Your task to perform on an android device: uninstall "WhatsApp Messenger" Image 0: 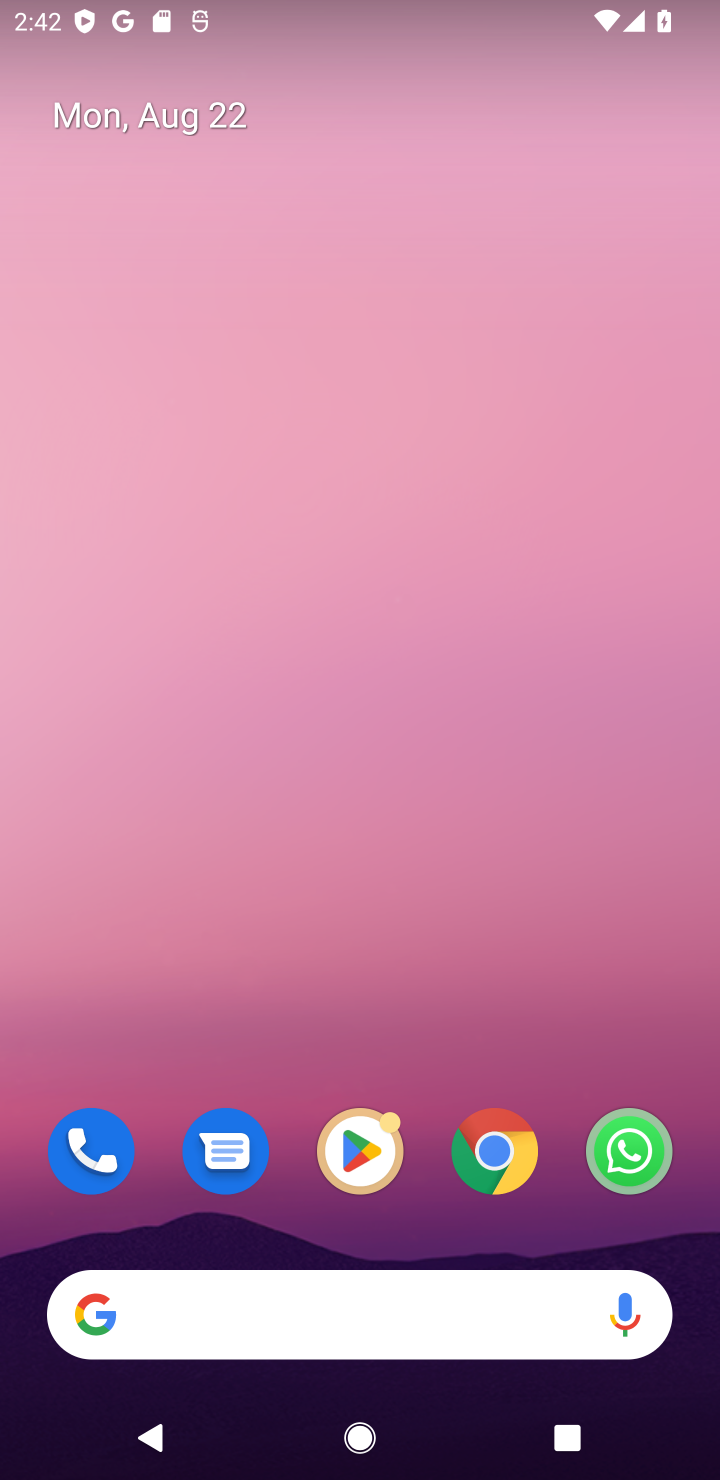
Step 0: click (356, 1142)
Your task to perform on an android device: uninstall "WhatsApp Messenger" Image 1: 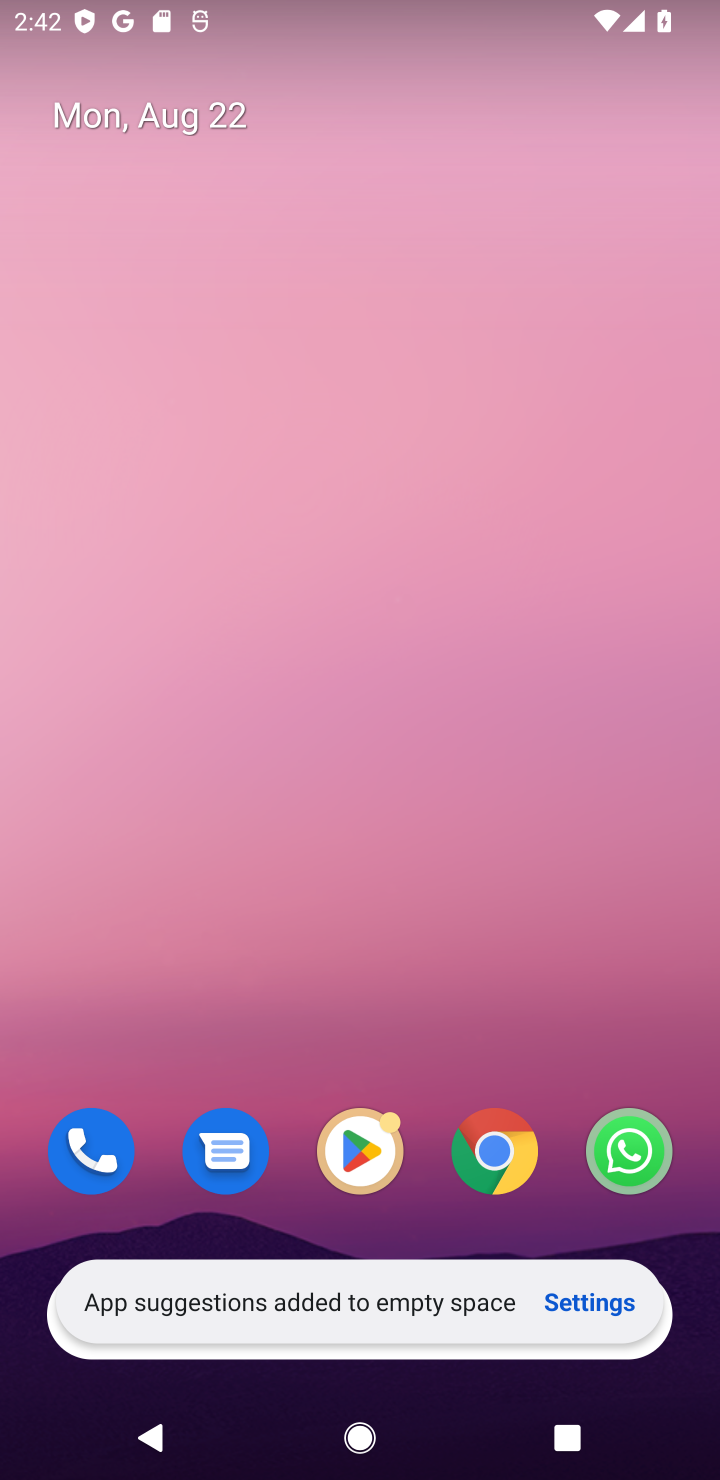
Step 1: click (356, 1144)
Your task to perform on an android device: uninstall "WhatsApp Messenger" Image 2: 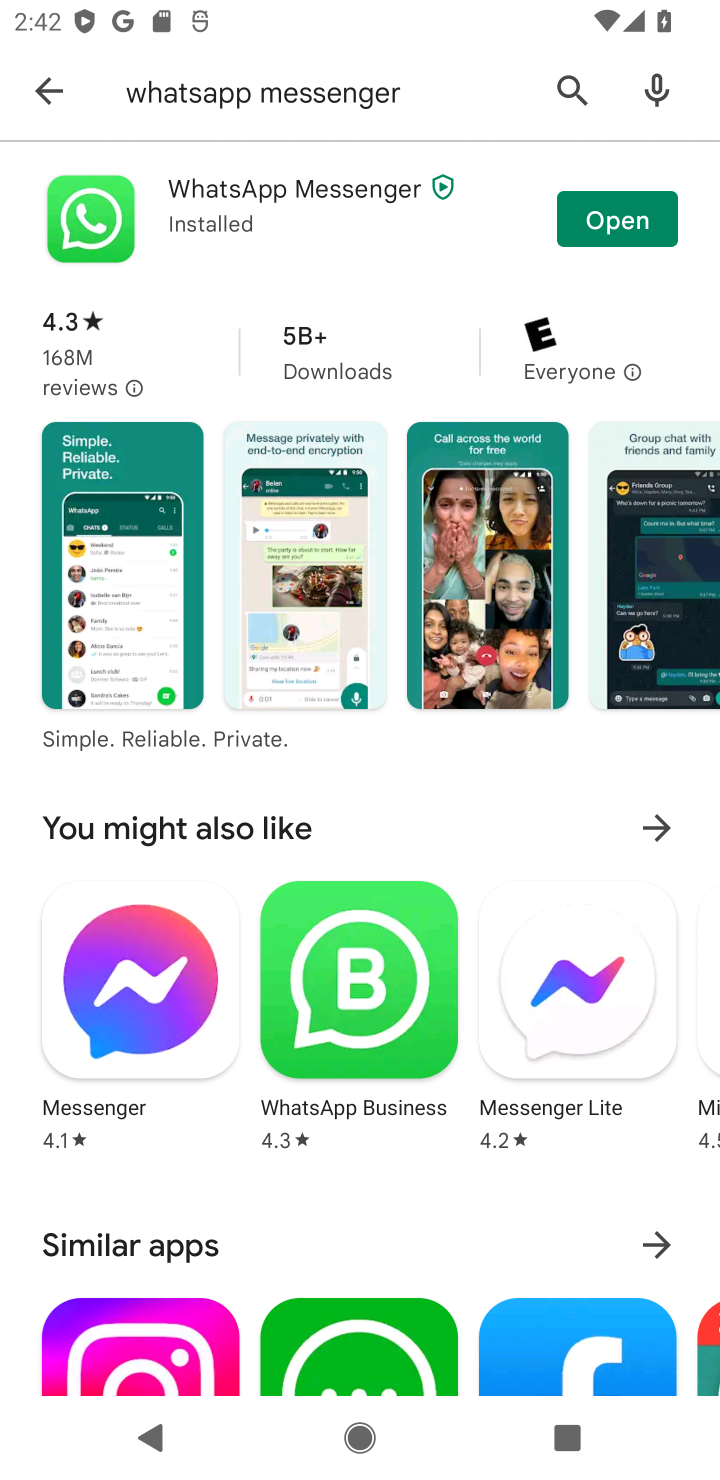
Step 2: click (169, 205)
Your task to perform on an android device: uninstall "WhatsApp Messenger" Image 3: 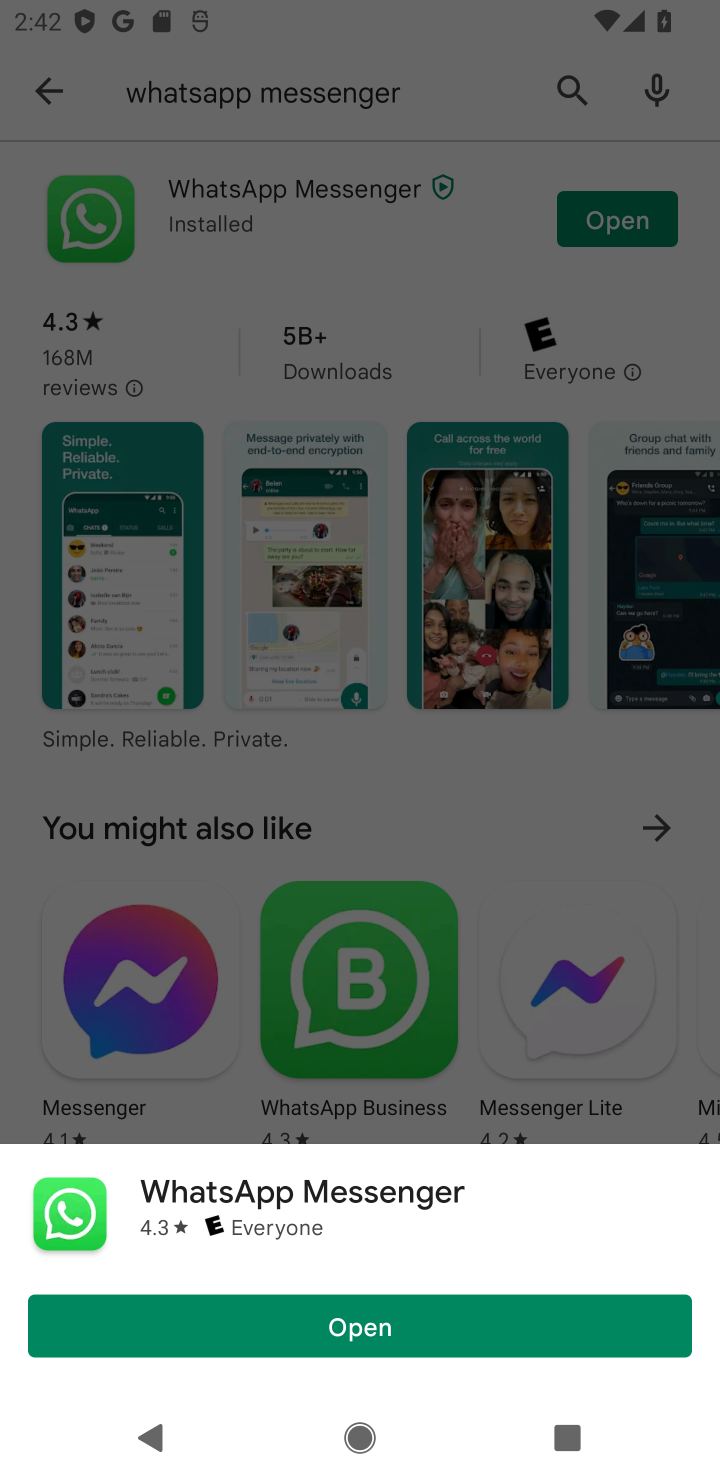
Step 3: click (116, 220)
Your task to perform on an android device: uninstall "WhatsApp Messenger" Image 4: 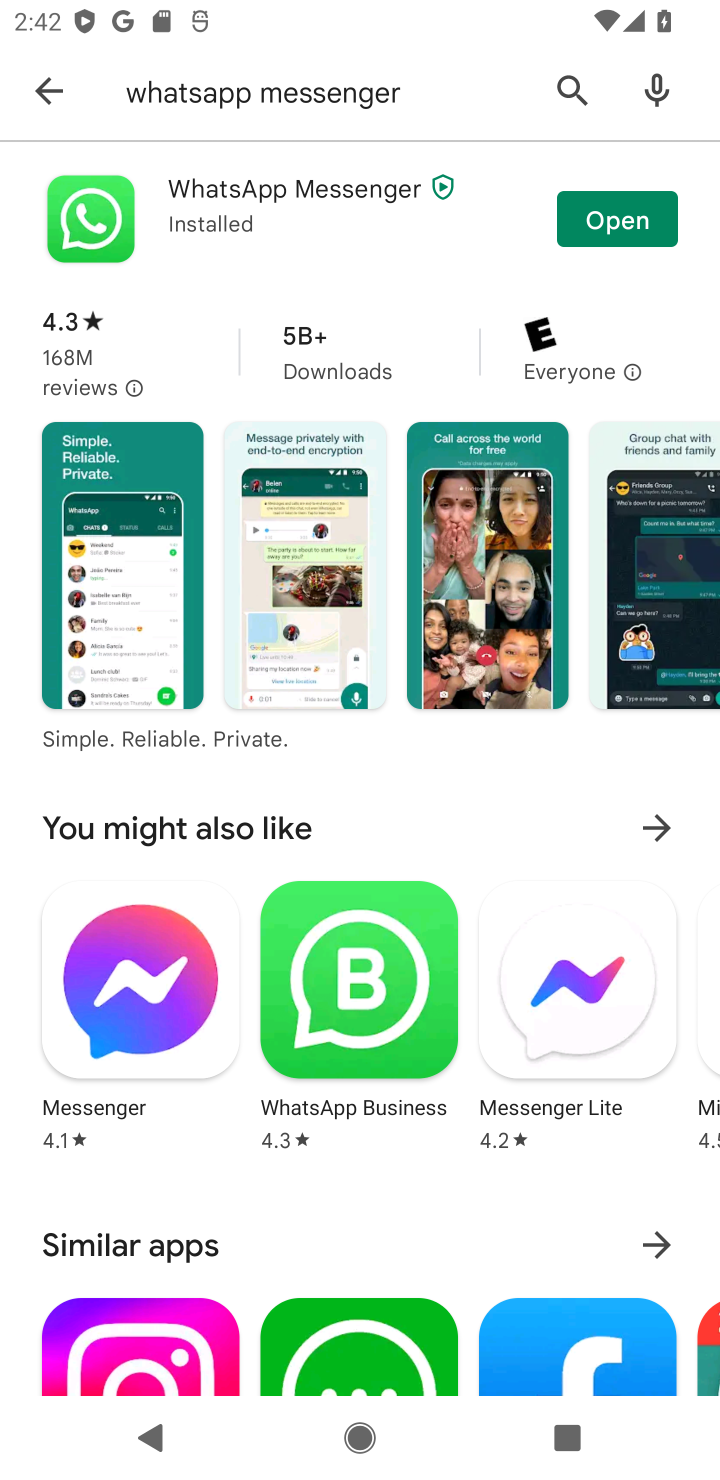
Step 4: click (224, 201)
Your task to perform on an android device: uninstall "WhatsApp Messenger" Image 5: 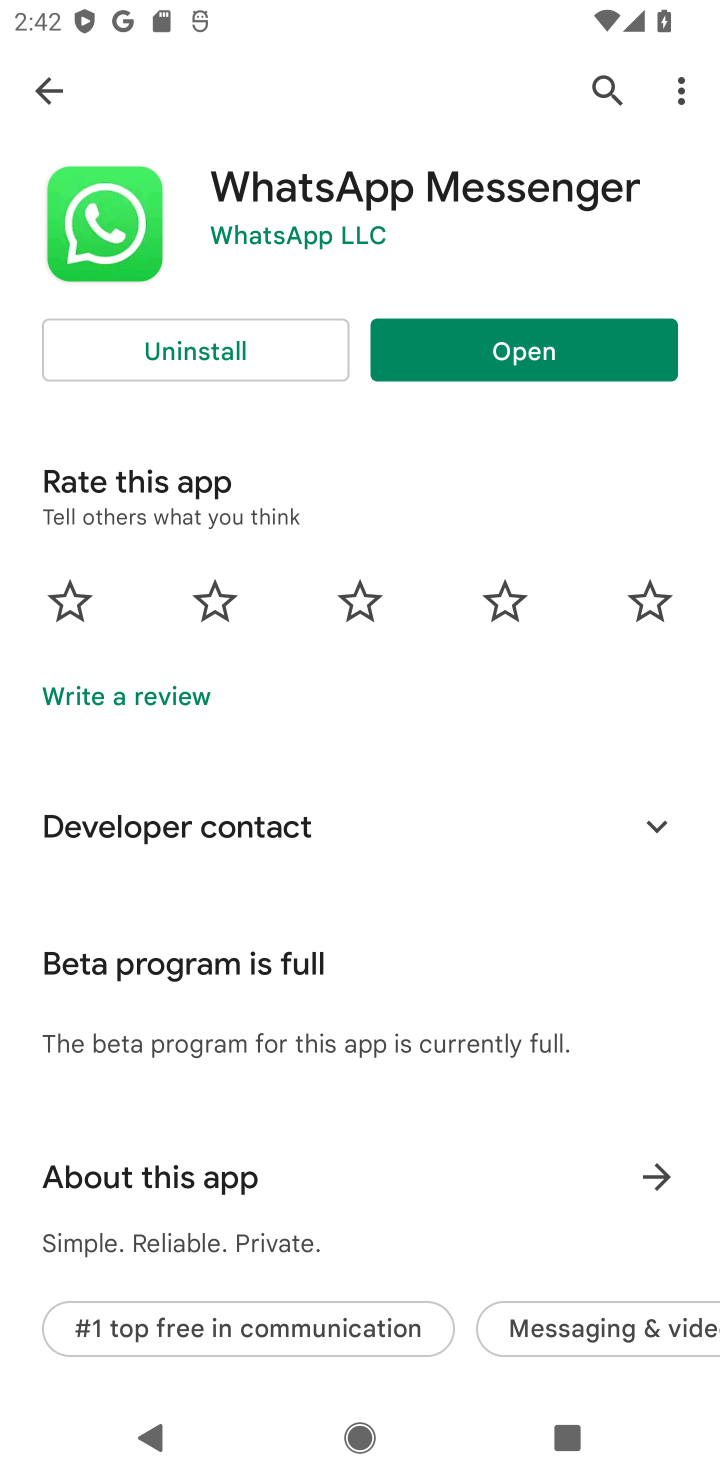
Step 5: click (228, 353)
Your task to perform on an android device: uninstall "WhatsApp Messenger" Image 6: 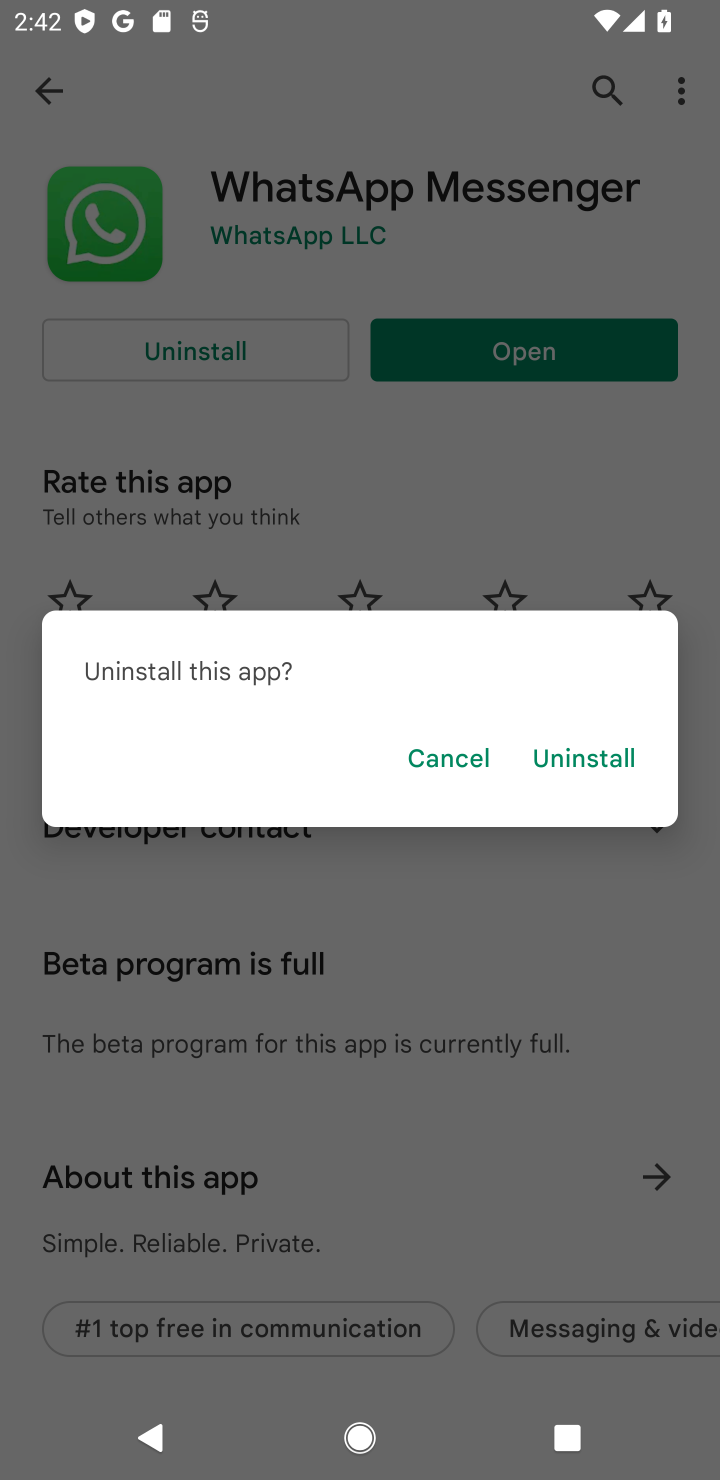
Step 6: click (609, 751)
Your task to perform on an android device: uninstall "WhatsApp Messenger" Image 7: 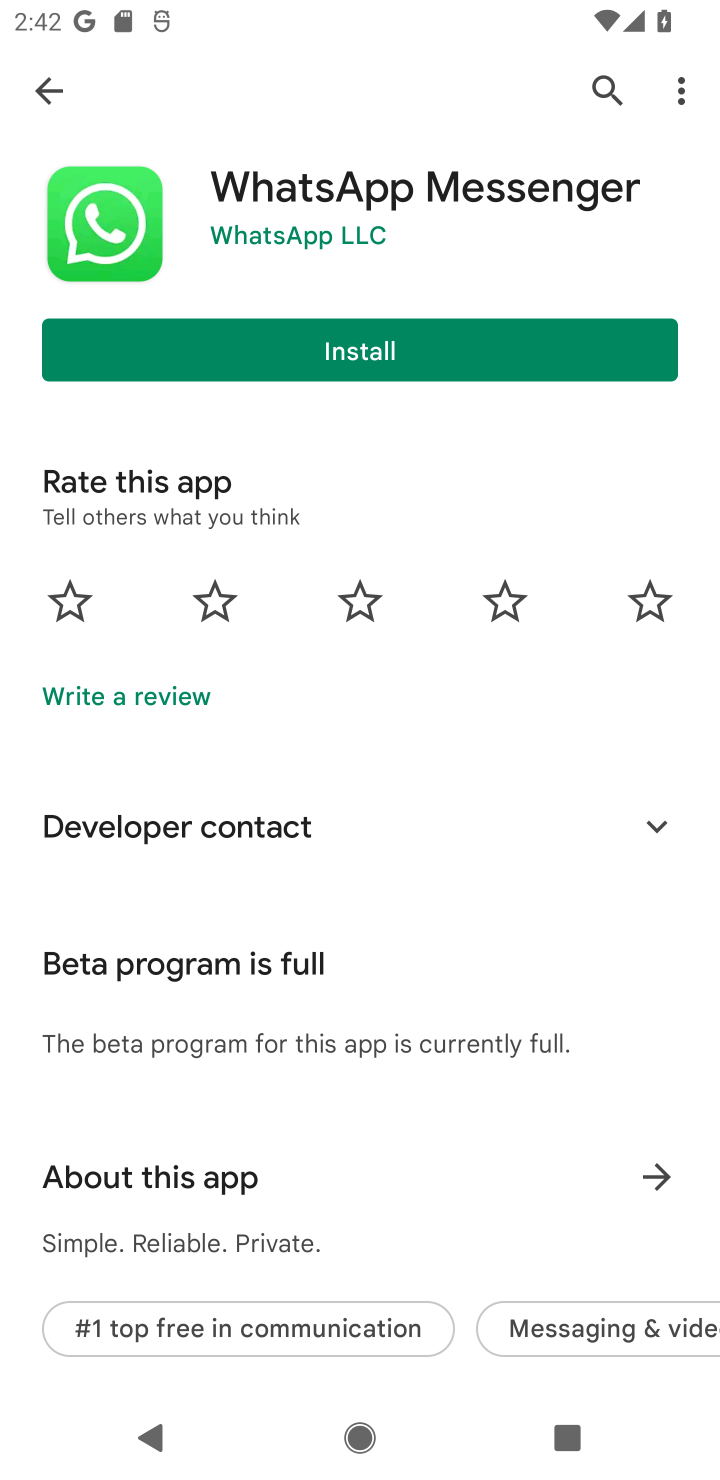
Step 7: task complete